Your task to perform on an android device: What's on my calendar tomorrow? Image 0: 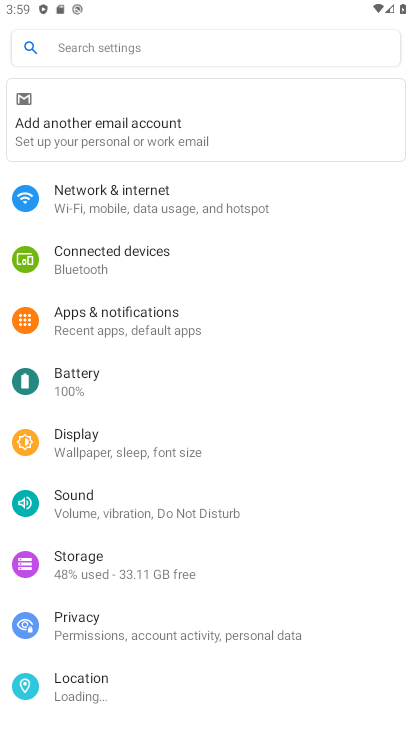
Step 0: press home button
Your task to perform on an android device: What's on my calendar tomorrow? Image 1: 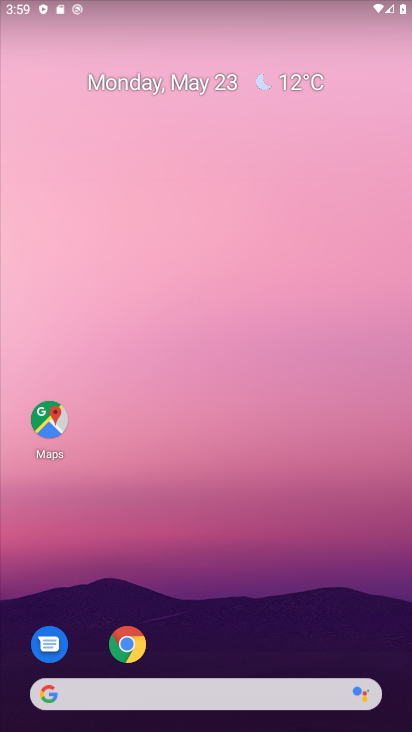
Step 1: drag from (203, 646) to (244, 67)
Your task to perform on an android device: What's on my calendar tomorrow? Image 2: 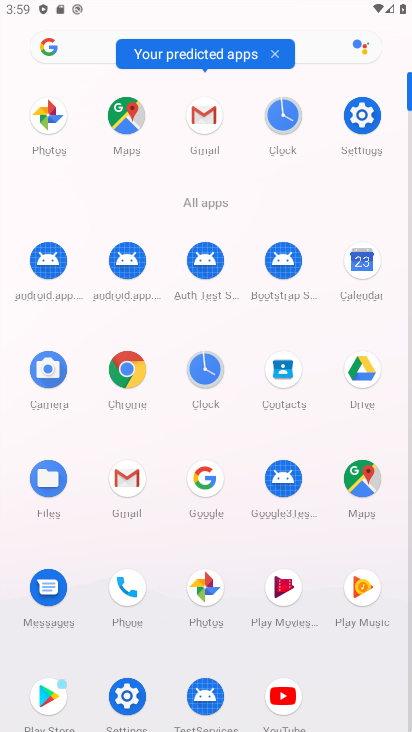
Step 2: click (376, 265)
Your task to perform on an android device: What's on my calendar tomorrow? Image 3: 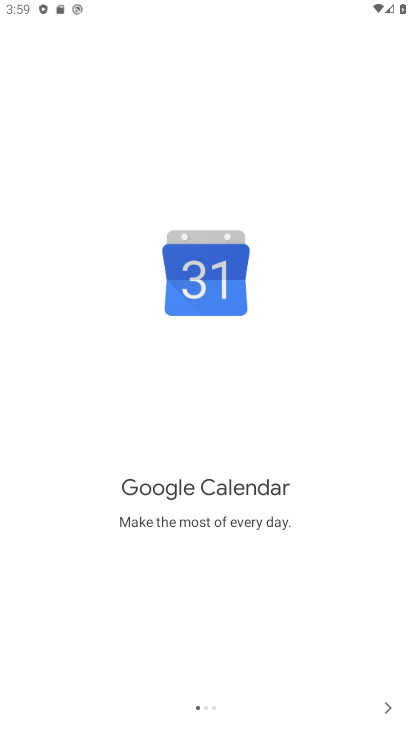
Step 3: click (384, 711)
Your task to perform on an android device: What's on my calendar tomorrow? Image 4: 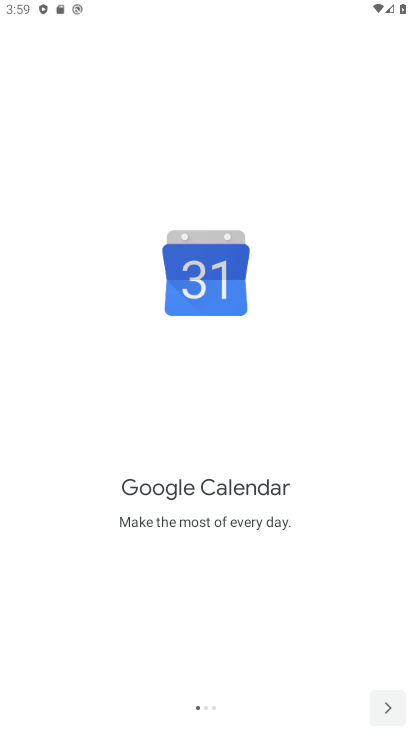
Step 4: click (384, 711)
Your task to perform on an android device: What's on my calendar tomorrow? Image 5: 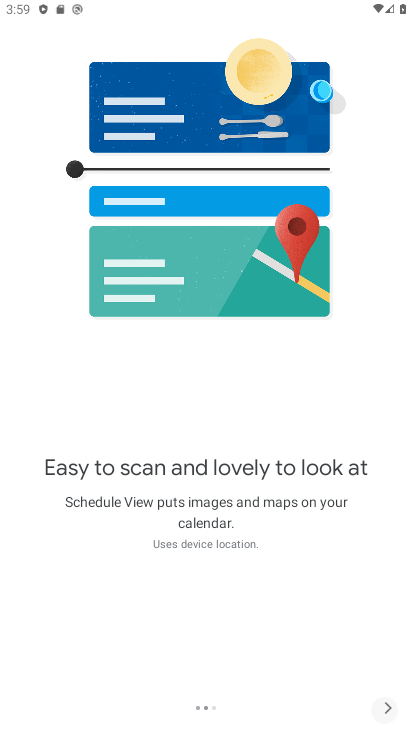
Step 5: click (384, 711)
Your task to perform on an android device: What's on my calendar tomorrow? Image 6: 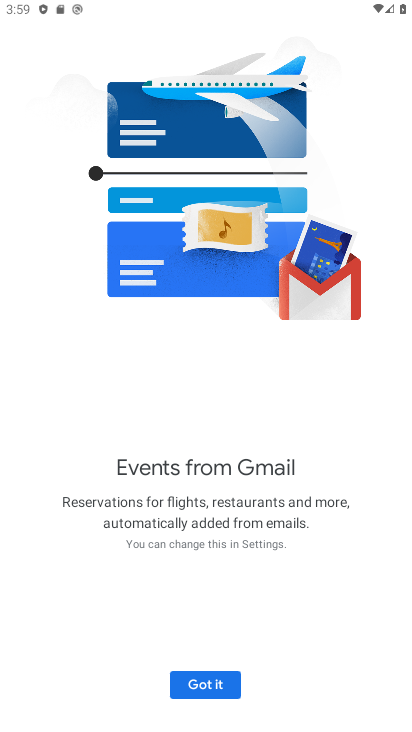
Step 6: click (226, 683)
Your task to perform on an android device: What's on my calendar tomorrow? Image 7: 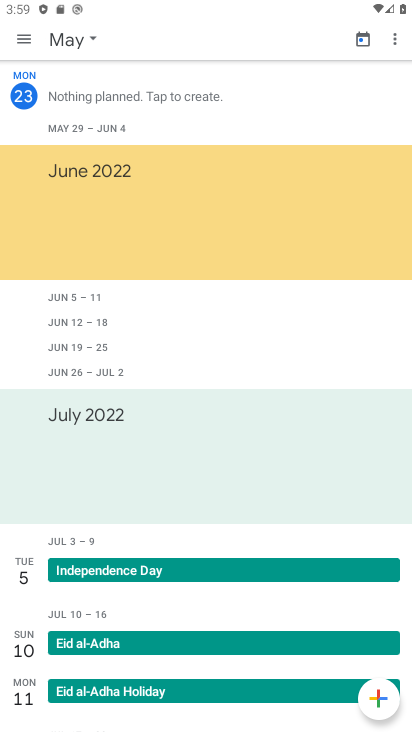
Step 7: click (19, 38)
Your task to perform on an android device: What's on my calendar tomorrow? Image 8: 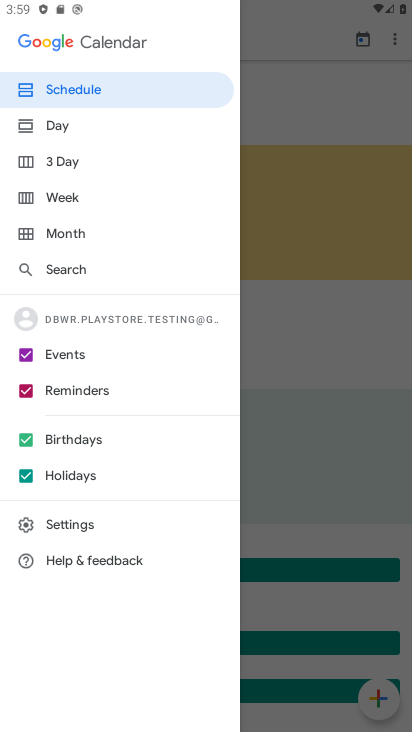
Step 8: click (52, 118)
Your task to perform on an android device: What's on my calendar tomorrow? Image 9: 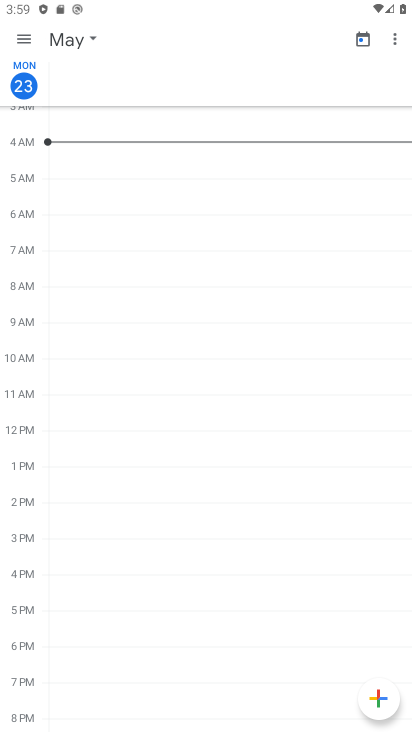
Step 9: click (86, 38)
Your task to perform on an android device: What's on my calendar tomorrow? Image 10: 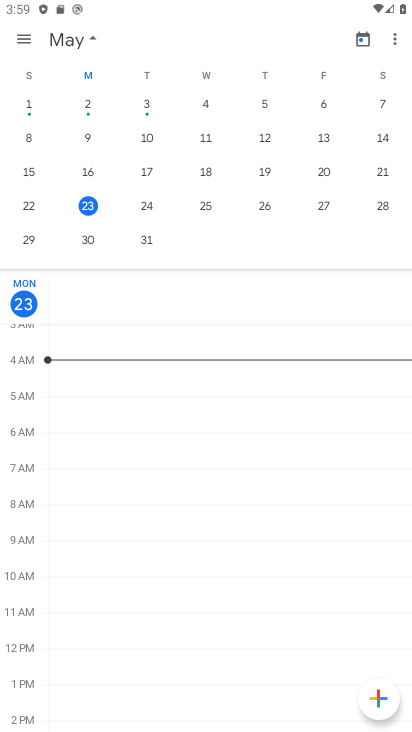
Step 10: click (150, 206)
Your task to perform on an android device: What's on my calendar tomorrow? Image 11: 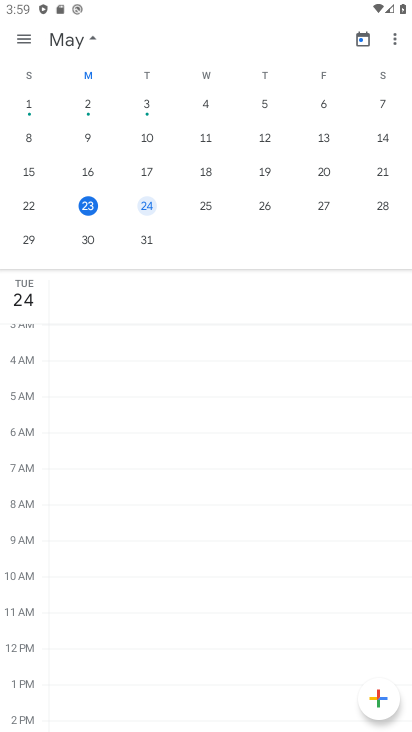
Step 11: task complete